Your task to perform on an android device: Open the stopwatch Image 0: 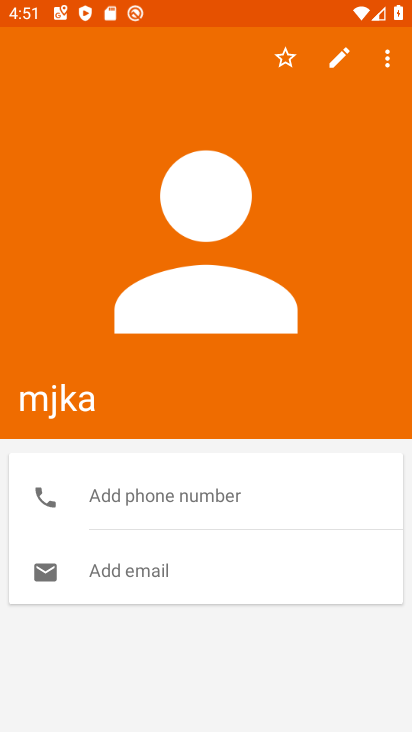
Step 0: press home button
Your task to perform on an android device: Open the stopwatch Image 1: 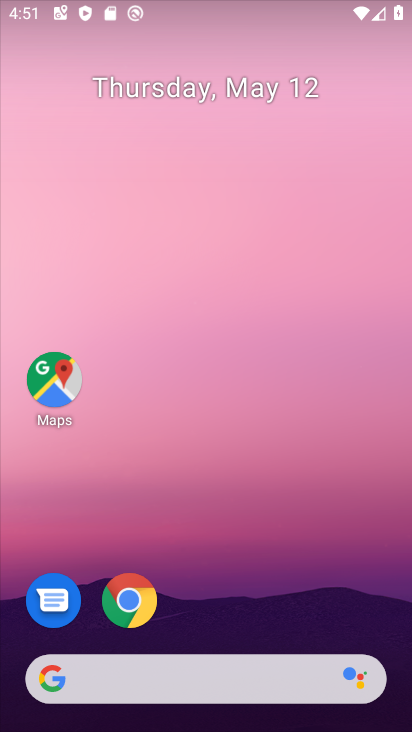
Step 1: drag from (212, 652) to (213, 234)
Your task to perform on an android device: Open the stopwatch Image 2: 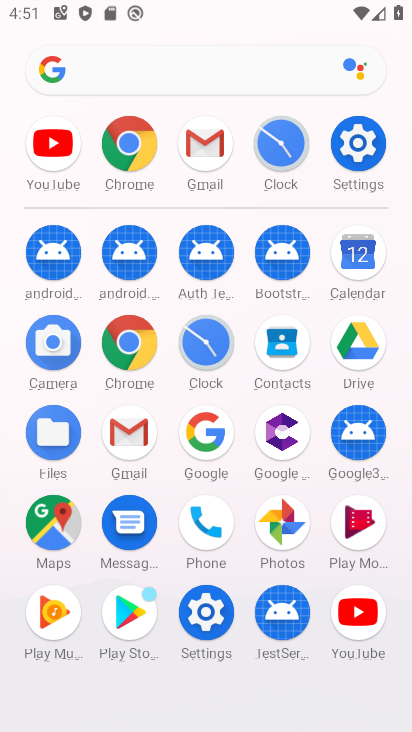
Step 2: click (207, 331)
Your task to perform on an android device: Open the stopwatch Image 3: 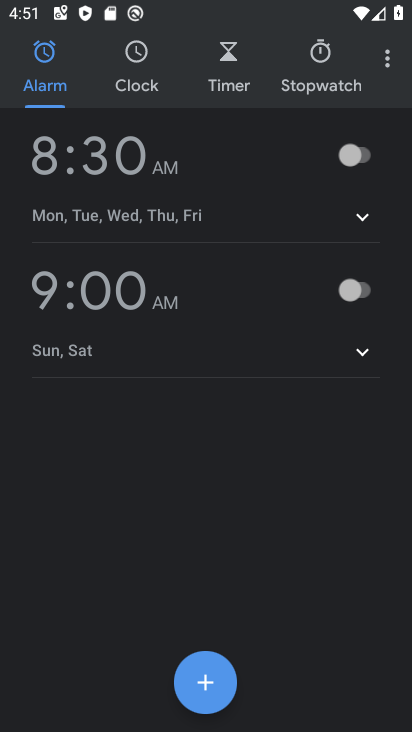
Step 3: click (386, 69)
Your task to perform on an android device: Open the stopwatch Image 4: 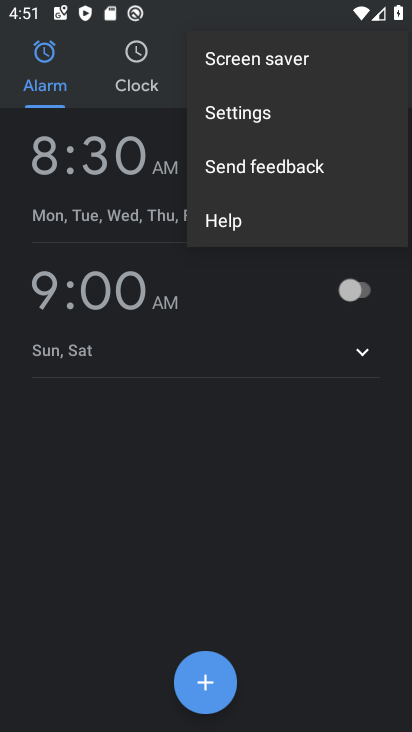
Step 4: click (141, 86)
Your task to perform on an android device: Open the stopwatch Image 5: 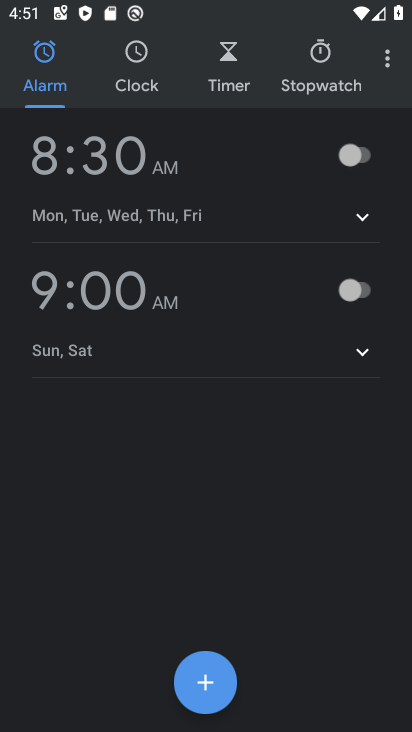
Step 5: click (310, 81)
Your task to perform on an android device: Open the stopwatch Image 6: 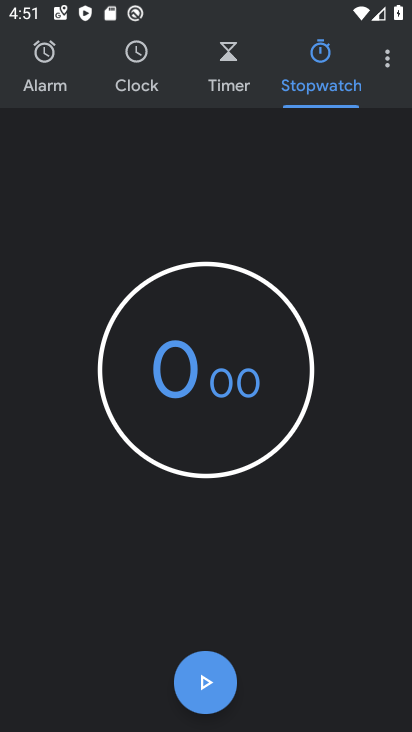
Step 6: drag from (295, 519) to (326, 252)
Your task to perform on an android device: Open the stopwatch Image 7: 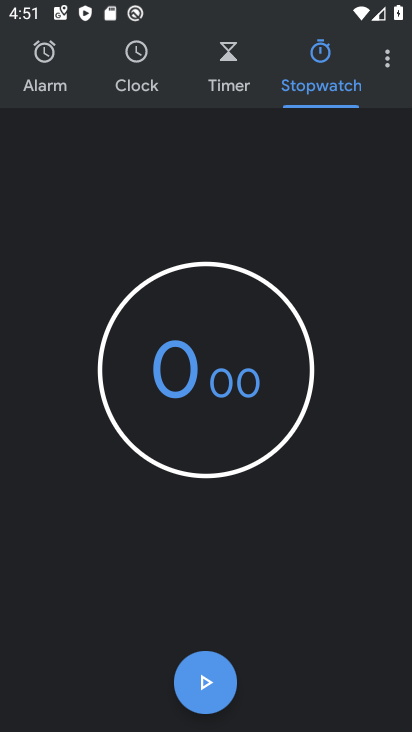
Step 7: click (299, 616)
Your task to perform on an android device: Open the stopwatch Image 8: 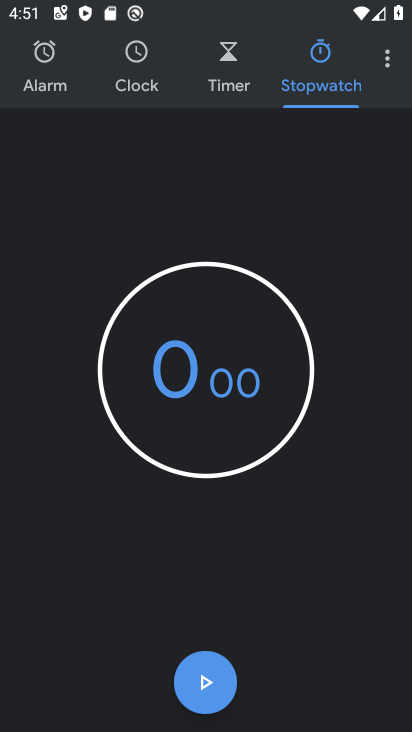
Step 8: click (204, 697)
Your task to perform on an android device: Open the stopwatch Image 9: 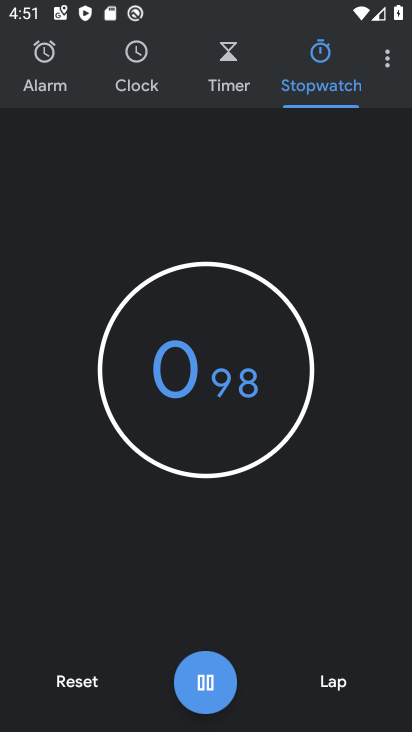
Step 9: task complete